Your task to perform on an android device: check data usage Image 0: 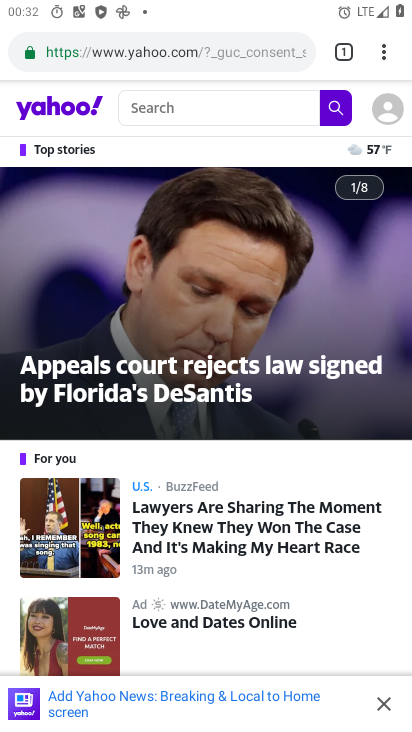
Step 0: press home button
Your task to perform on an android device: check data usage Image 1: 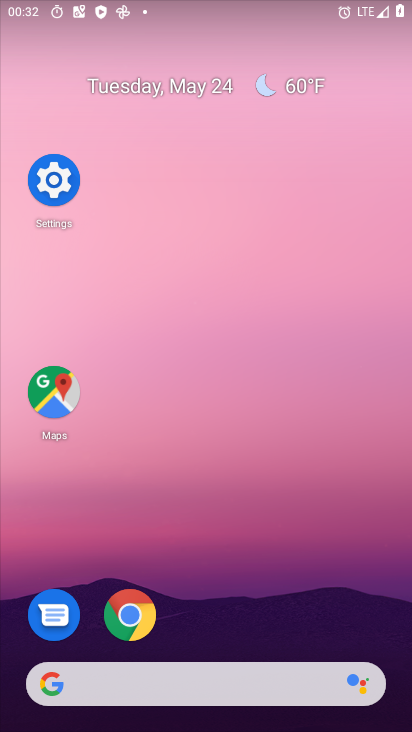
Step 1: click (57, 170)
Your task to perform on an android device: check data usage Image 2: 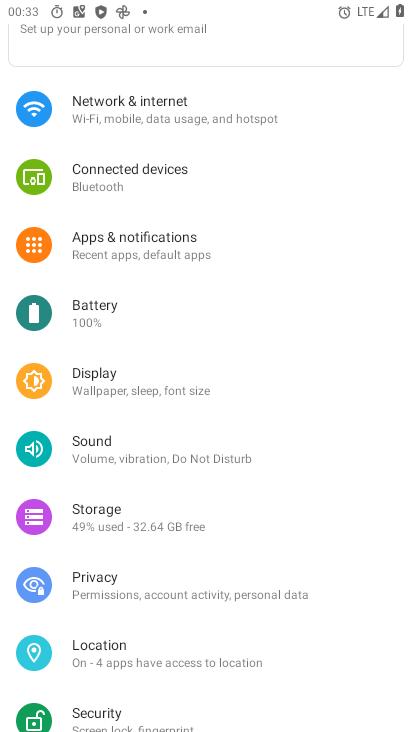
Step 2: drag from (160, 135) to (194, 457)
Your task to perform on an android device: check data usage Image 3: 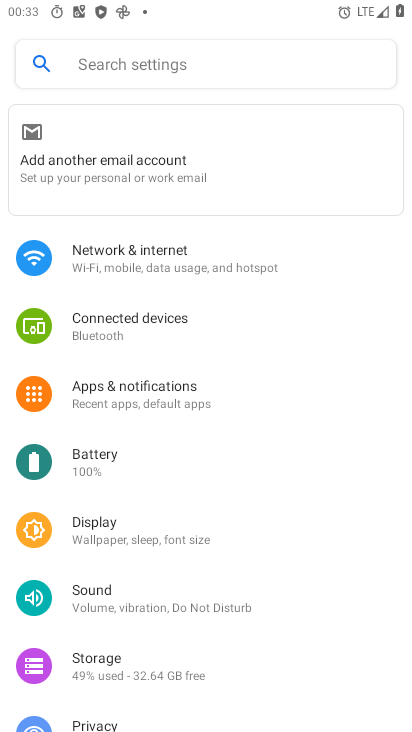
Step 3: click (154, 268)
Your task to perform on an android device: check data usage Image 4: 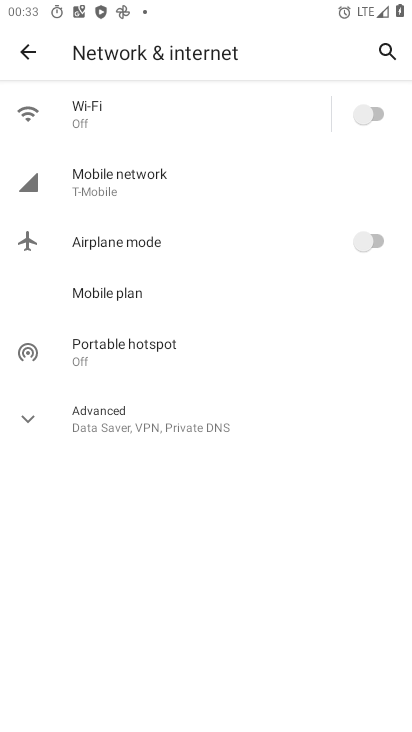
Step 4: click (132, 183)
Your task to perform on an android device: check data usage Image 5: 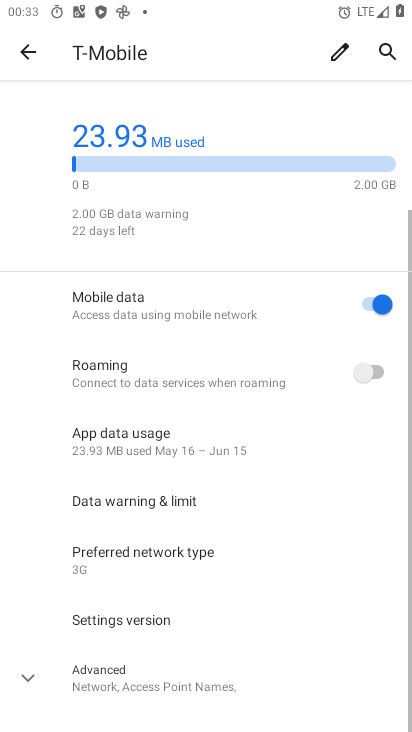
Step 5: task complete